Your task to perform on an android device: toggle sleep mode Image 0: 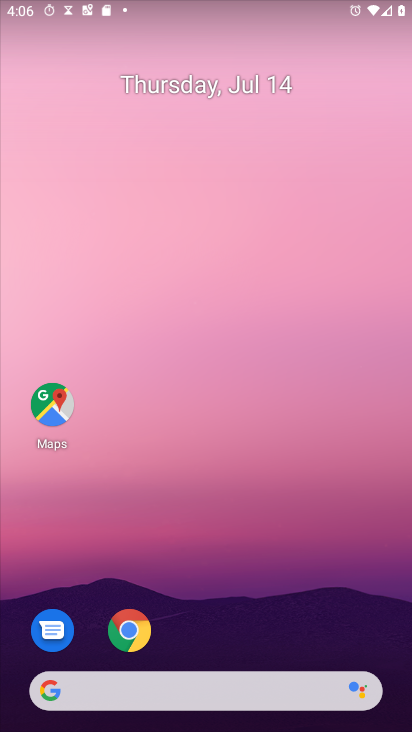
Step 0: drag from (228, 706) to (240, 227)
Your task to perform on an android device: toggle sleep mode Image 1: 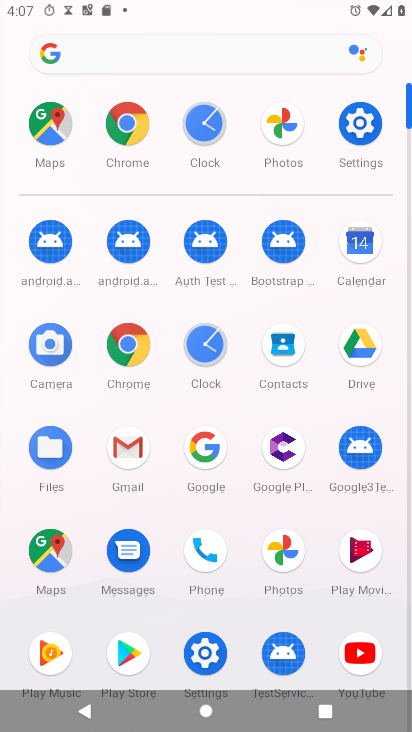
Step 1: click (354, 128)
Your task to perform on an android device: toggle sleep mode Image 2: 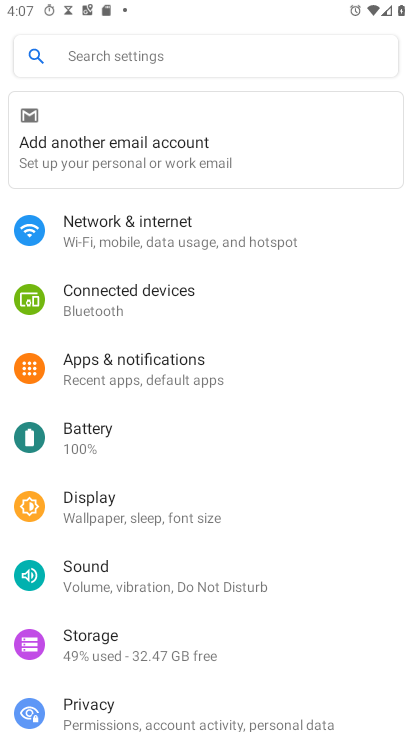
Step 2: click (162, 521)
Your task to perform on an android device: toggle sleep mode Image 3: 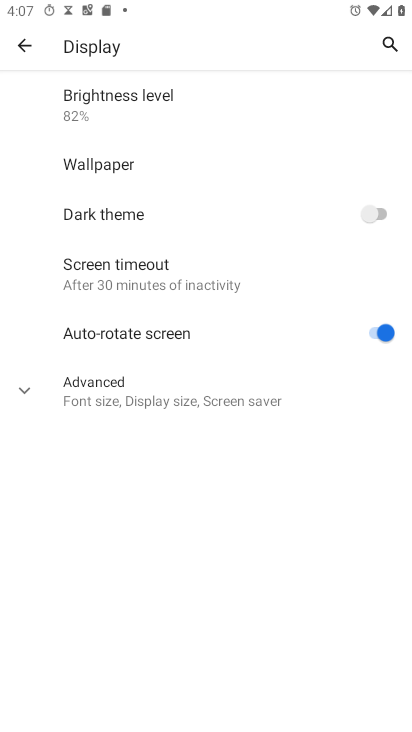
Step 3: task complete